Your task to perform on an android device: add a label to a message in the gmail app Image 0: 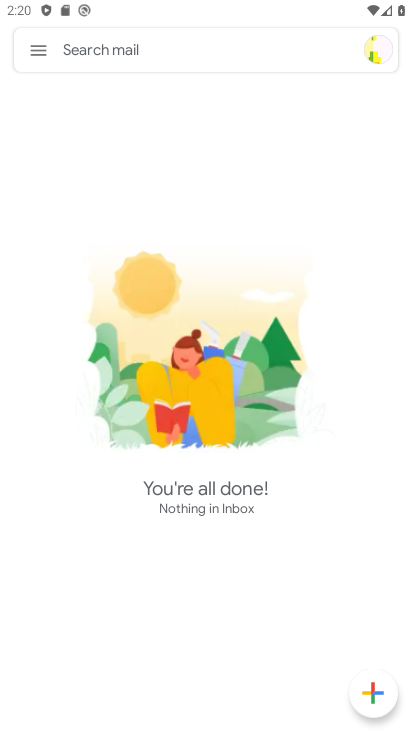
Step 0: press home button
Your task to perform on an android device: add a label to a message in the gmail app Image 1: 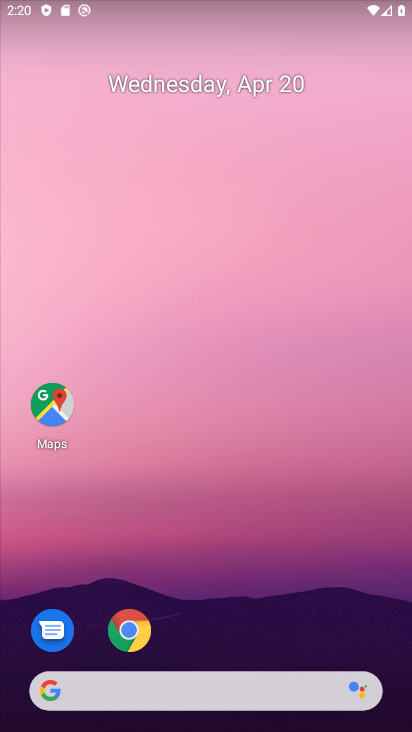
Step 1: drag from (171, 609) to (86, 179)
Your task to perform on an android device: add a label to a message in the gmail app Image 2: 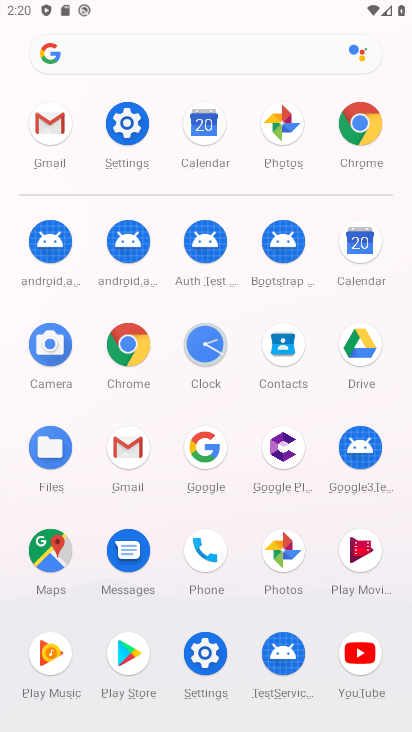
Step 2: click (135, 425)
Your task to perform on an android device: add a label to a message in the gmail app Image 3: 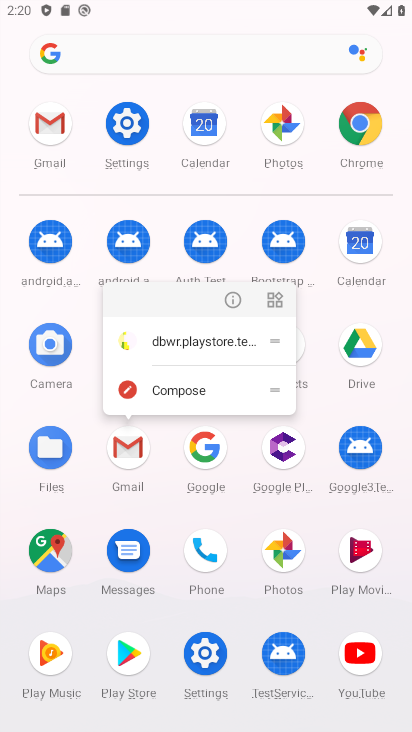
Step 3: click (116, 451)
Your task to perform on an android device: add a label to a message in the gmail app Image 4: 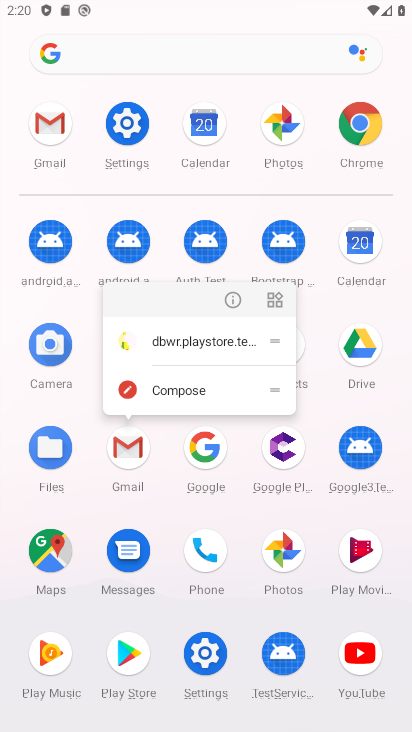
Step 4: click (116, 451)
Your task to perform on an android device: add a label to a message in the gmail app Image 5: 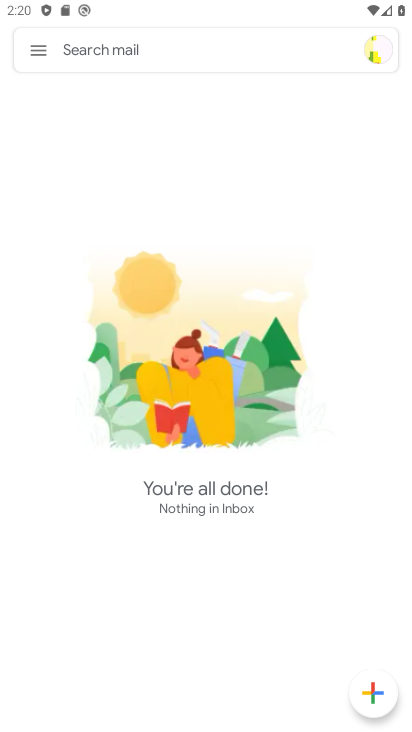
Step 5: drag from (208, 445) to (214, 326)
Your task to perform on an android device: add a label to a message in the gmail app Image 6: 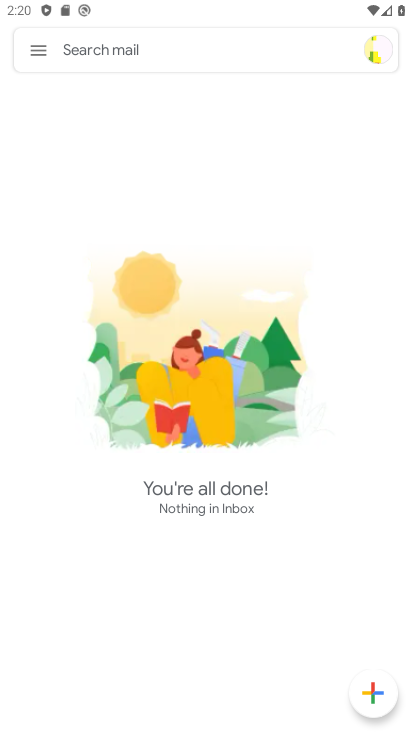
Step 6: click (45, 40)
Your task to perform on an android device: add a label to a message in the gmail app Image 7: 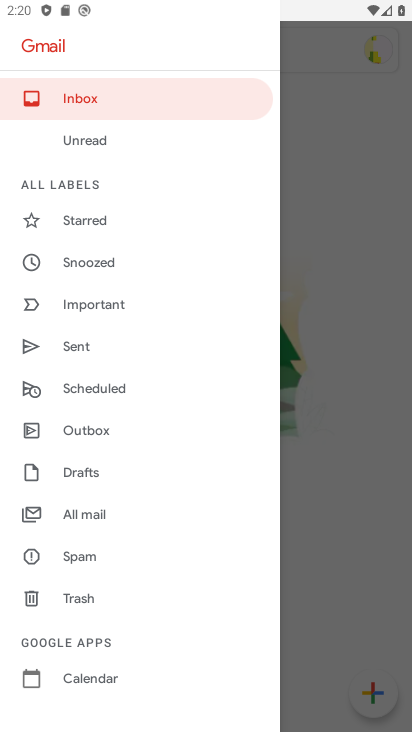
Step 7: task complete